Your task to perform on an android device: Go to accessibility settings Image 0: 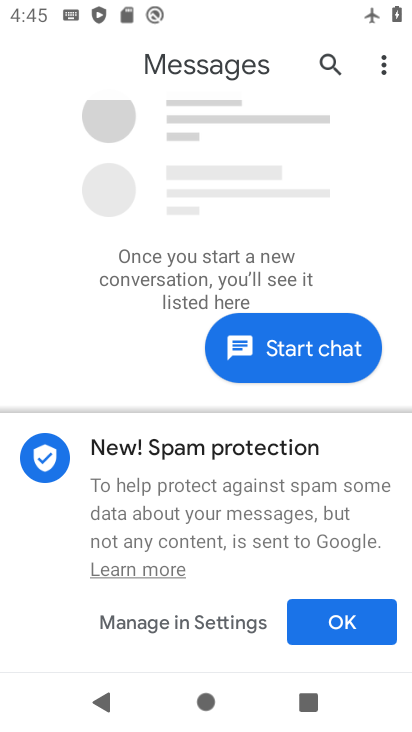
Step 0: click (60, 399)
Your task to perform on an android device: Go to accessibility settings Image 1: 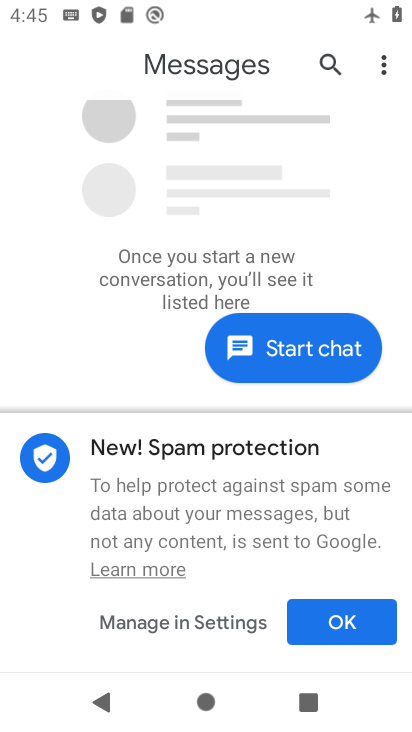
Step 1: press home button
Your task to perform on an android device: Go to accessibility settings Image 2: 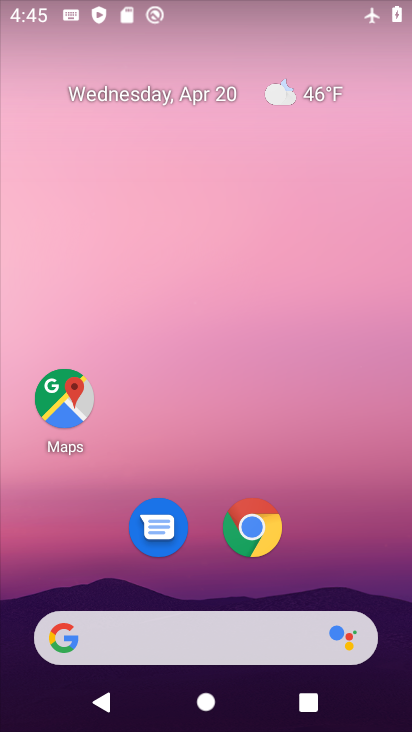
Step 2: drag from (160, 558) to (168, 128)
Your task to perform on an android device: Go to accessibility settings Image 3: 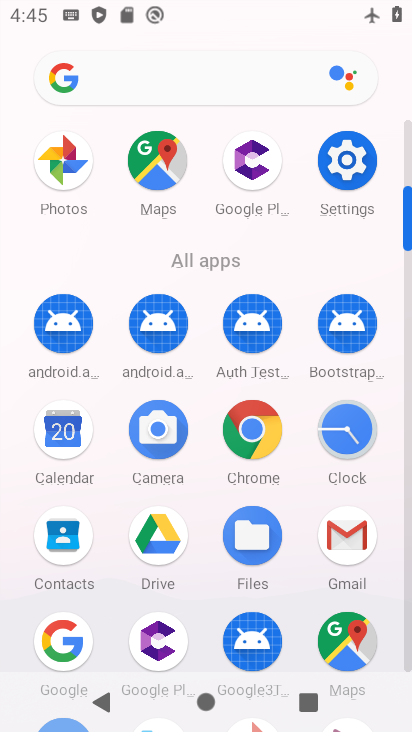
Step 3: click (354, 160)
Your task to perform on an android device: Go to accessibility settings Image 4: 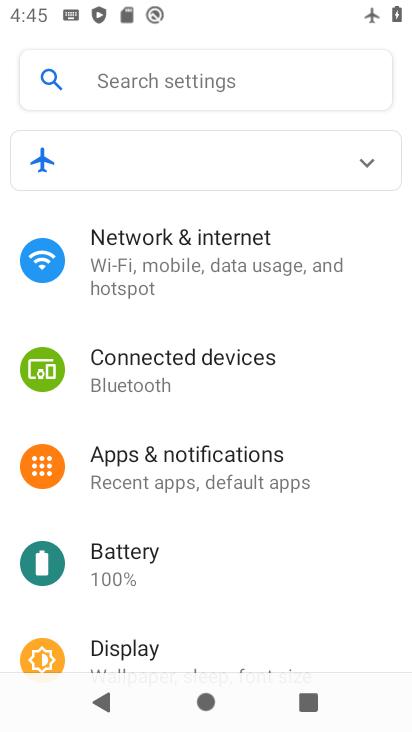
Step 4: drag from (217, 562) to (221, 186)
Your task to perform on an android device: Go to accessibility settings Image 5: 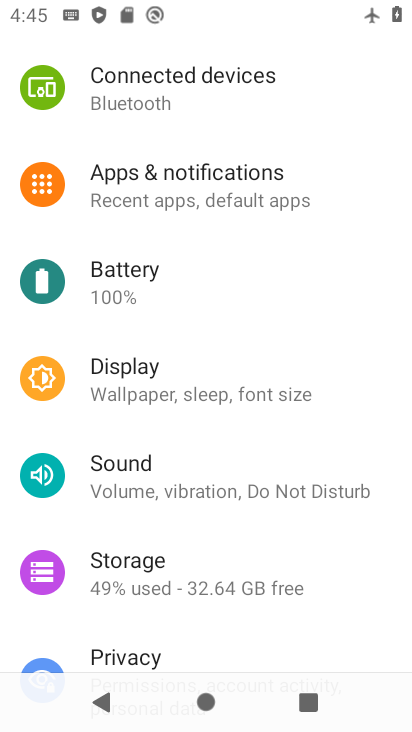
Step 5: drag from (191, 513) to (194, 306)
Your task to perform on an android device: Go to accessibility settings Image 6: 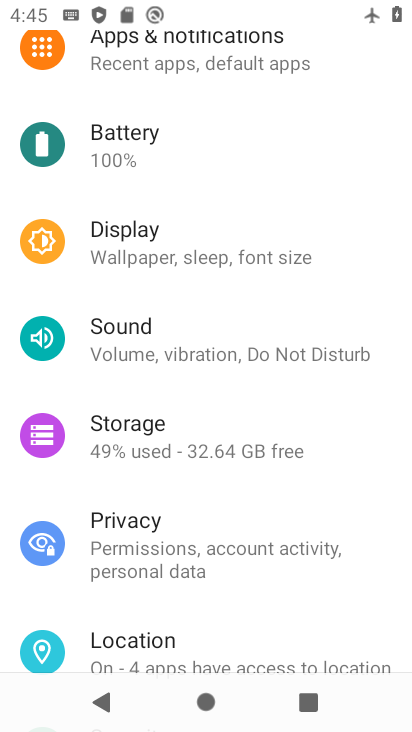
Step 6: drag from (224, 625) to (217, 330)
Your task to perform on an android device: Go to accessibility settings Image 7: 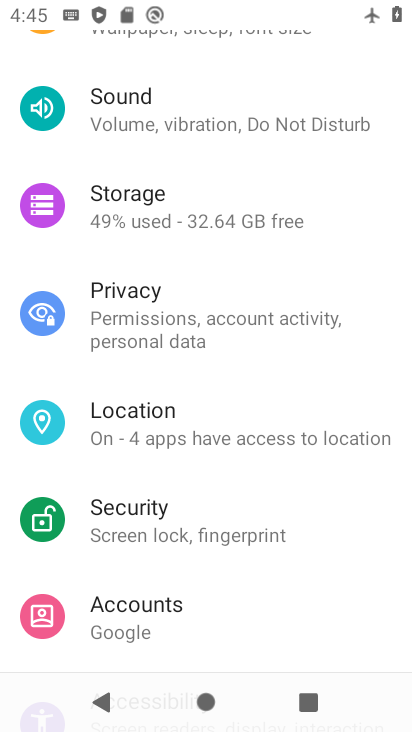
Step 7: click (222, 668)
Your task to perform on an android device: Go to accessibility settings Image 8: 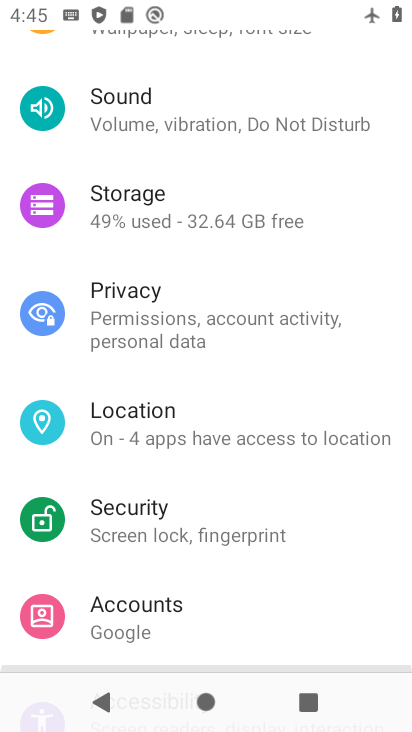
Step 8: drag from (222, 633) to (210, 419)
Your task to perform on an android device: Go to accessibility settings Image 9: 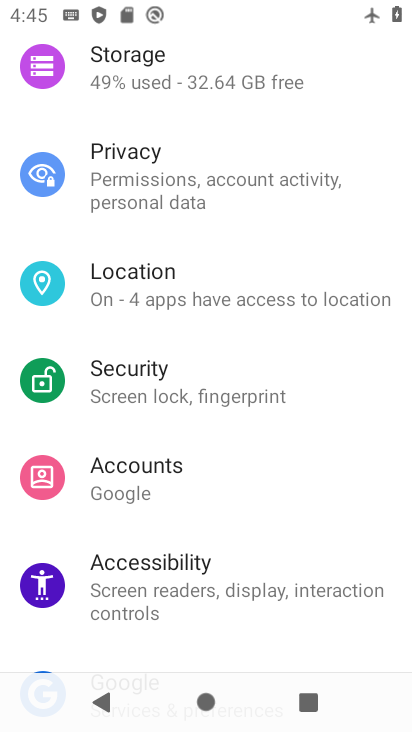
Step 9: click (198, 579)
Your task to perform on an android device: Go to accessibility settings Image 10: 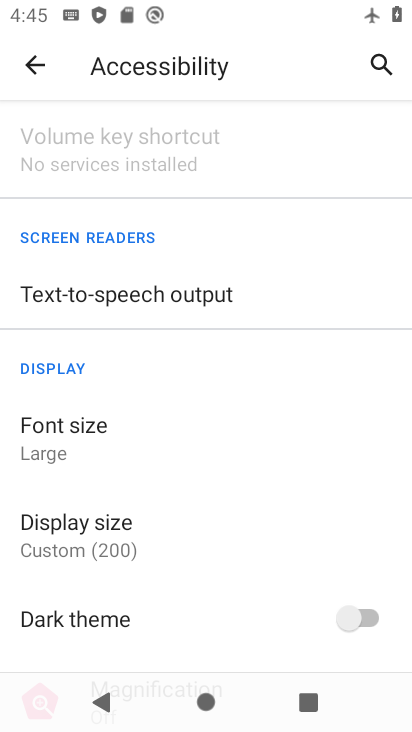
Step 10: task complete